Your task to perform on an android device: toggle translation in the chrome app Image 0: 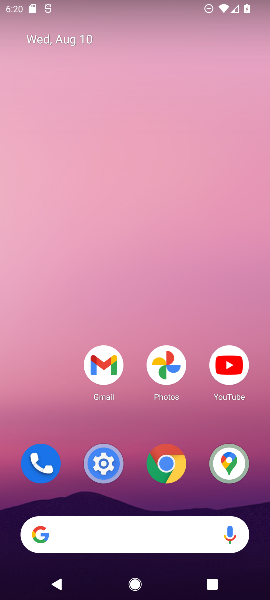
Step 0: click (170, 469)
Your task to perform on an android device: toggle translation in the chrome app Image 1: 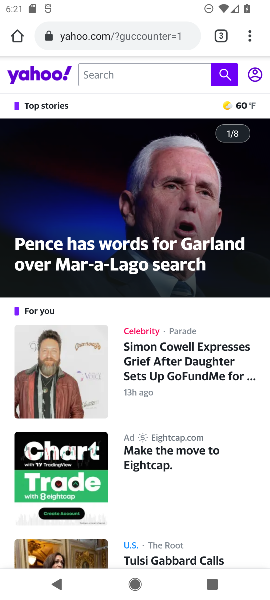
Step 1: click (245, 39)
Your task to perform on an android device: toggle translation in the chrome app Image 2: 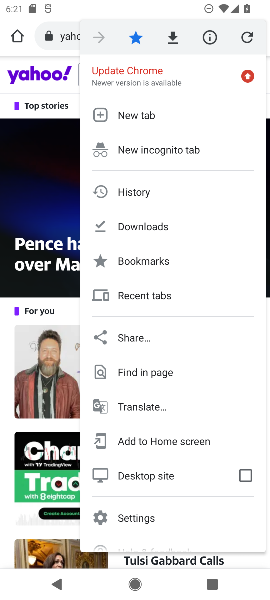
Step 2: click (132, 517)
Your task to perform on an android device: toggle translation in the chrome app Image 3: 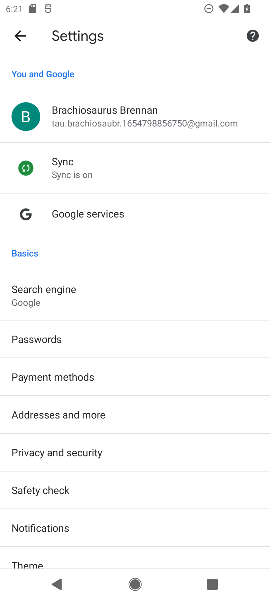
Step 3: drag from (146, 507) to (127, 237)
Your task to perform on an android device: toggle translation in the chrome app Image 4: 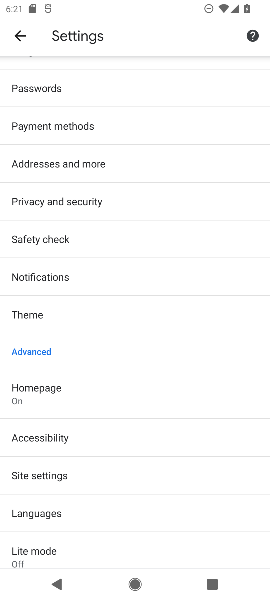
Step 4: click (54, 510)
Your task to perform on an android device: toggle translation in the chrome app Image 5: 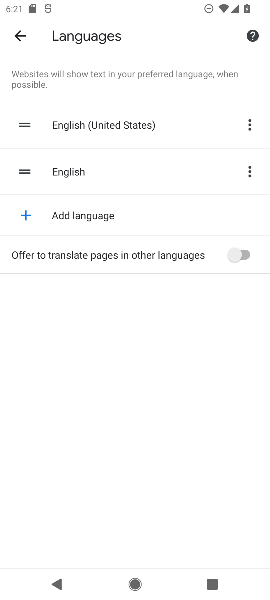
Step 5: click (233, 257)
Your task to perform on an android device: toggle translation in the chrome app Image 6: 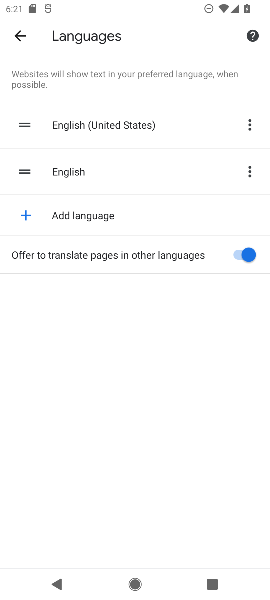
Step 6: task complete